Your task to perform on an android device: uninstall "Google News" Image 0: 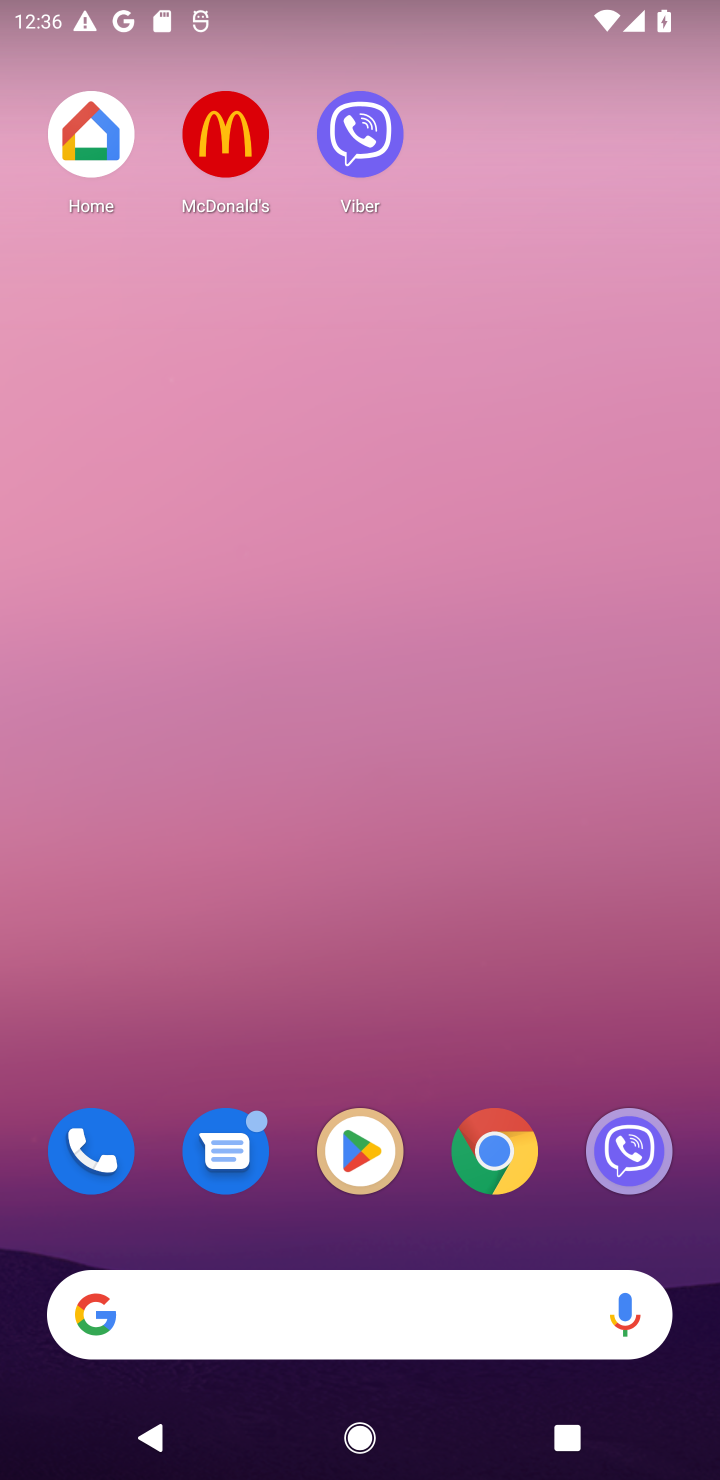
Step 0: click (341, 1107)
Your task to perform on an android device: uninstall "Google News" Image 1: 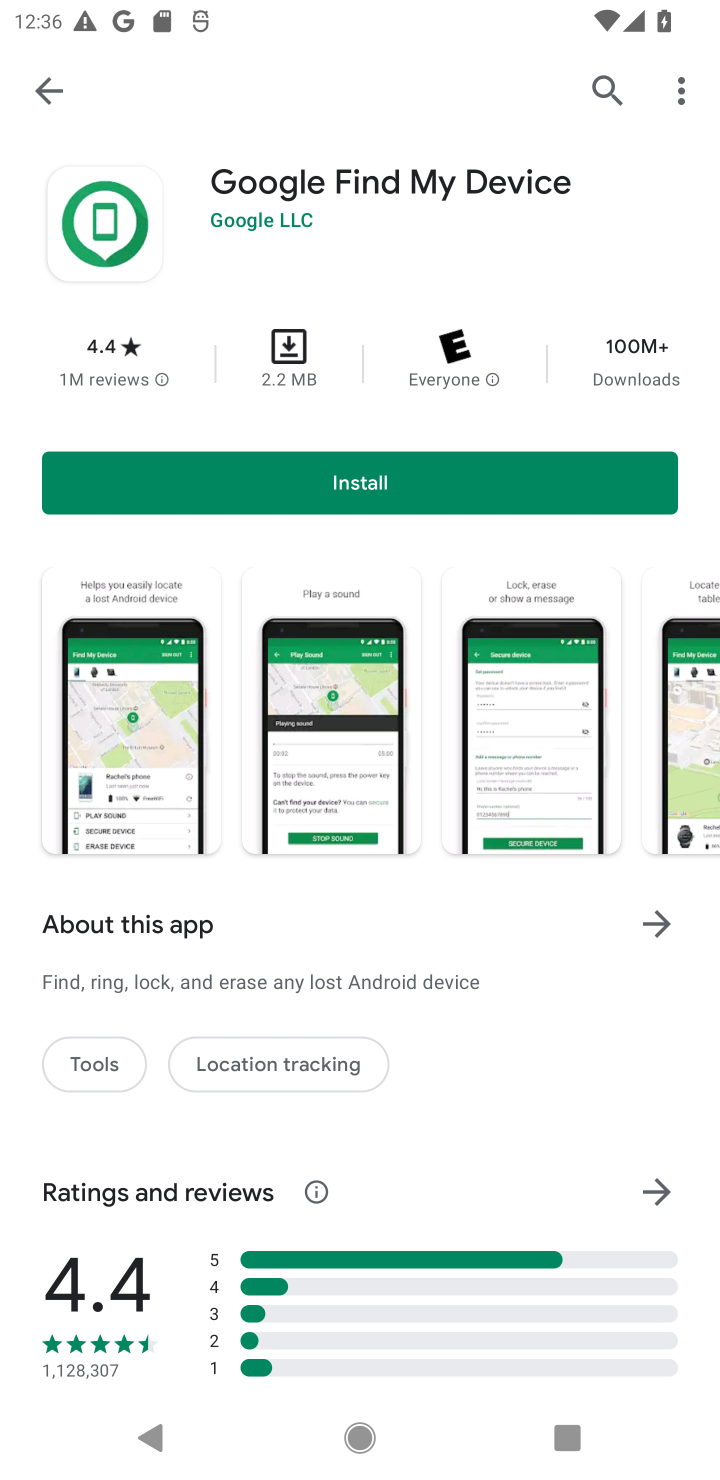
Step 1: click (609, 102)
Your task to perform on an android device: uninstall "Google News" Image 2: 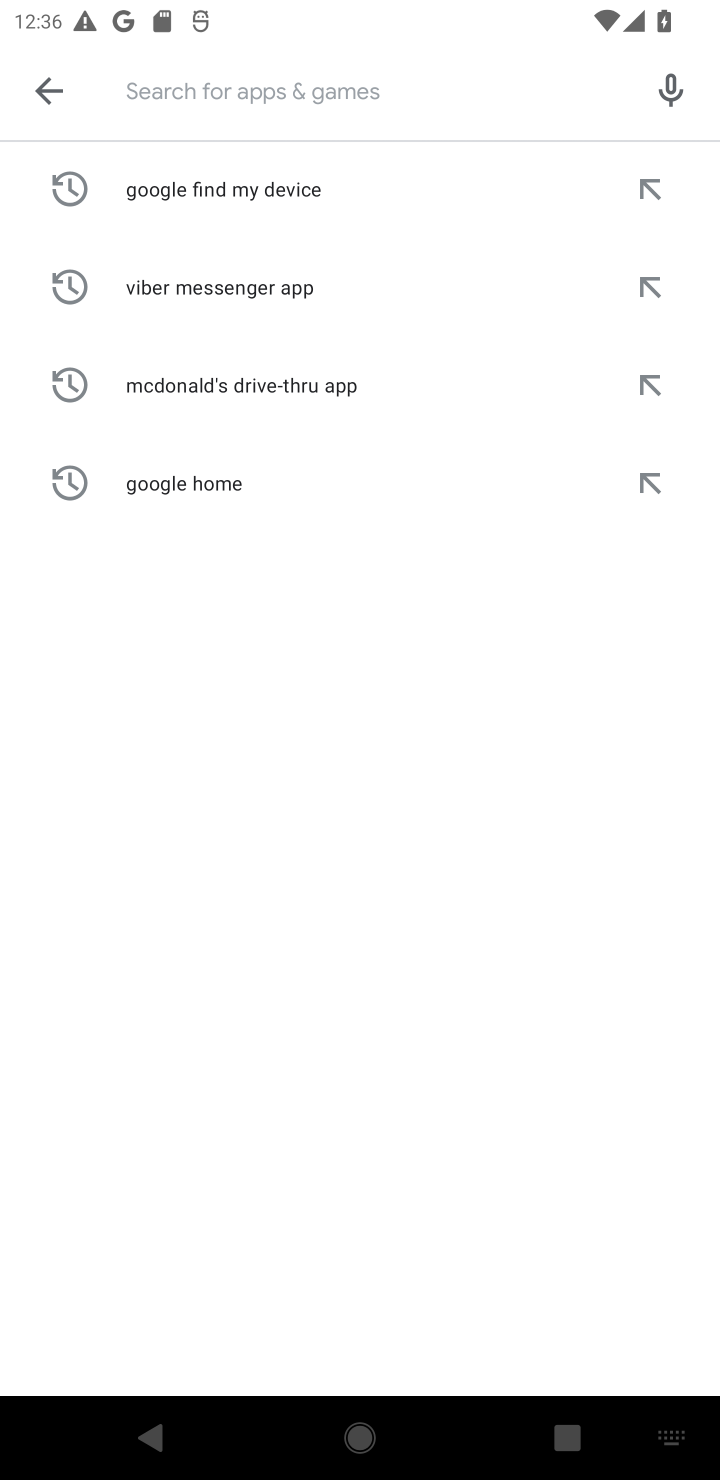
Step 2: type "Google News"
Your task to perform on an android device: uninstall "Google News" Image 3: 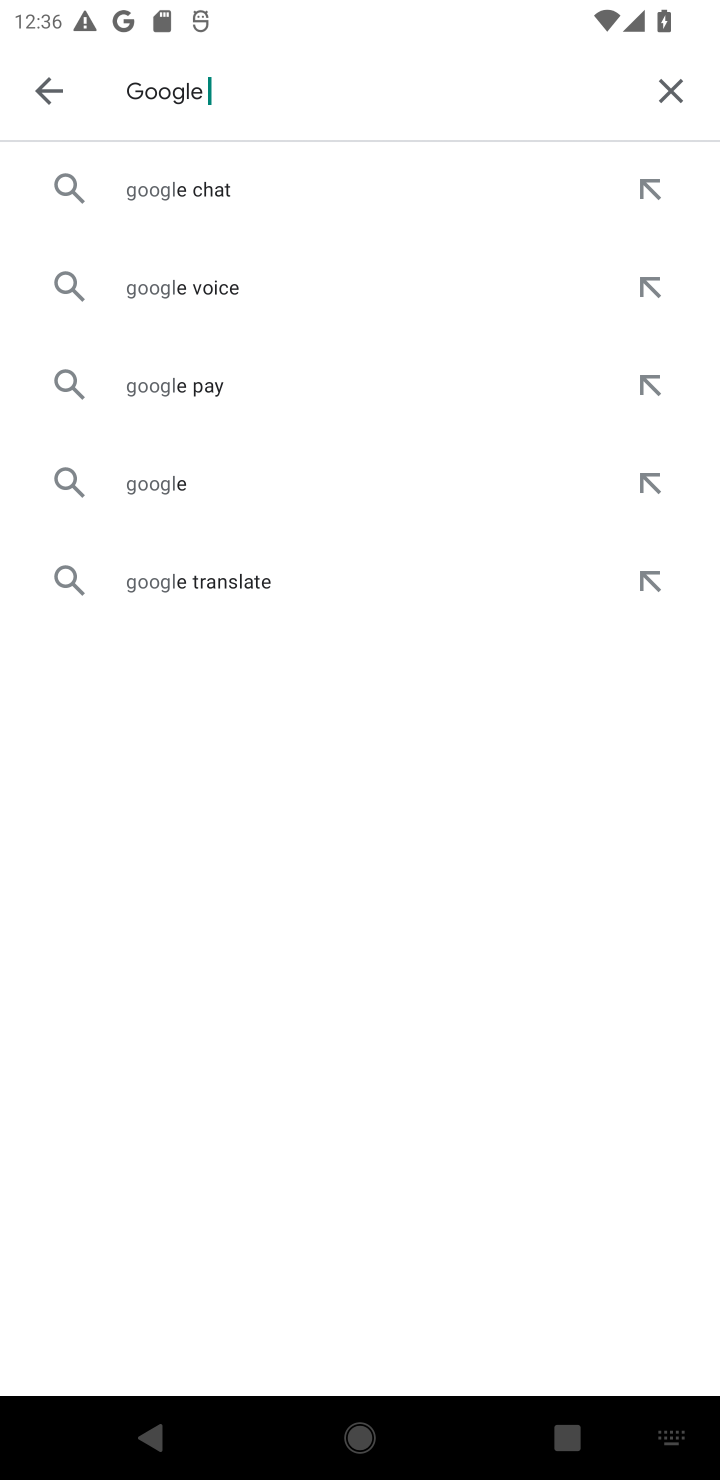
Step 3: type ""
Your task to perform on an android device: uninstall "Google News" Image 4: 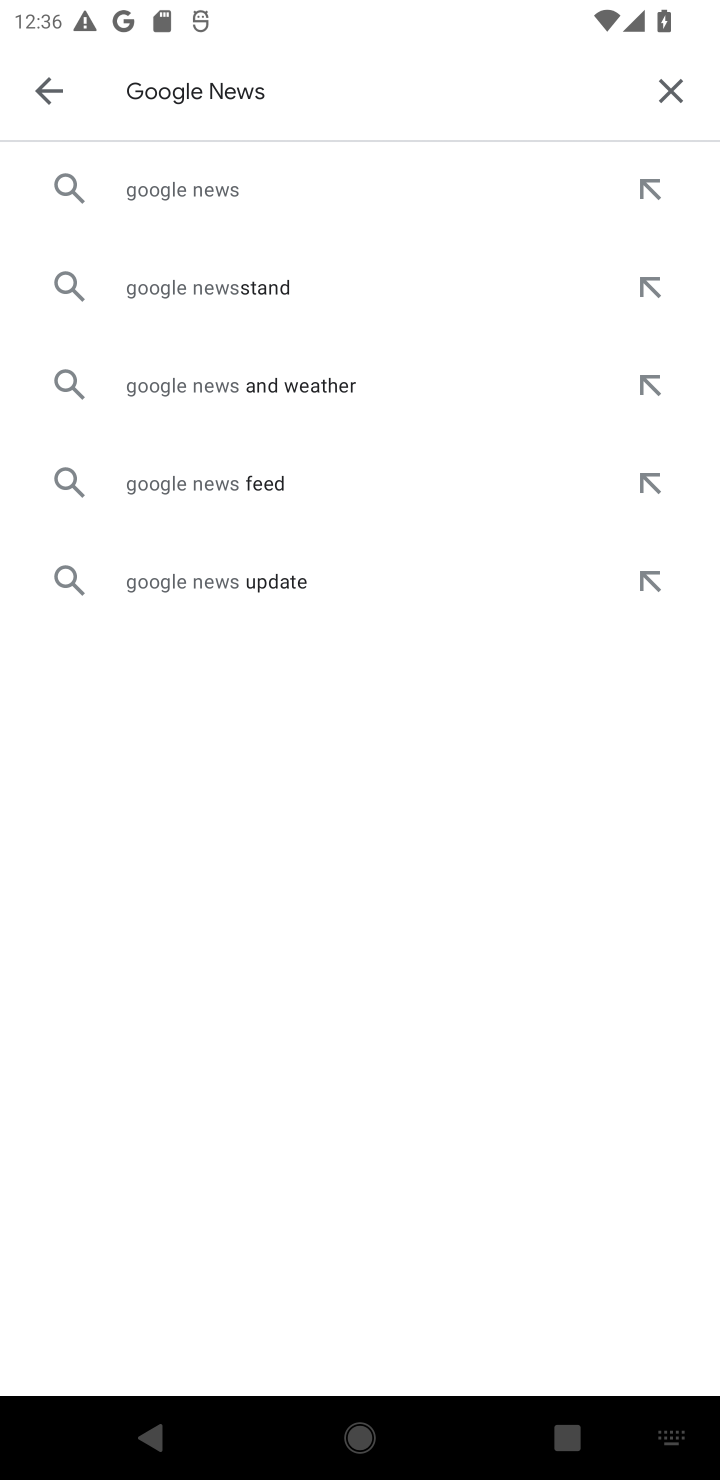
Step 4: click (250, 201)
Your task to perform on an android device: uninstall "Google News" Image 5: 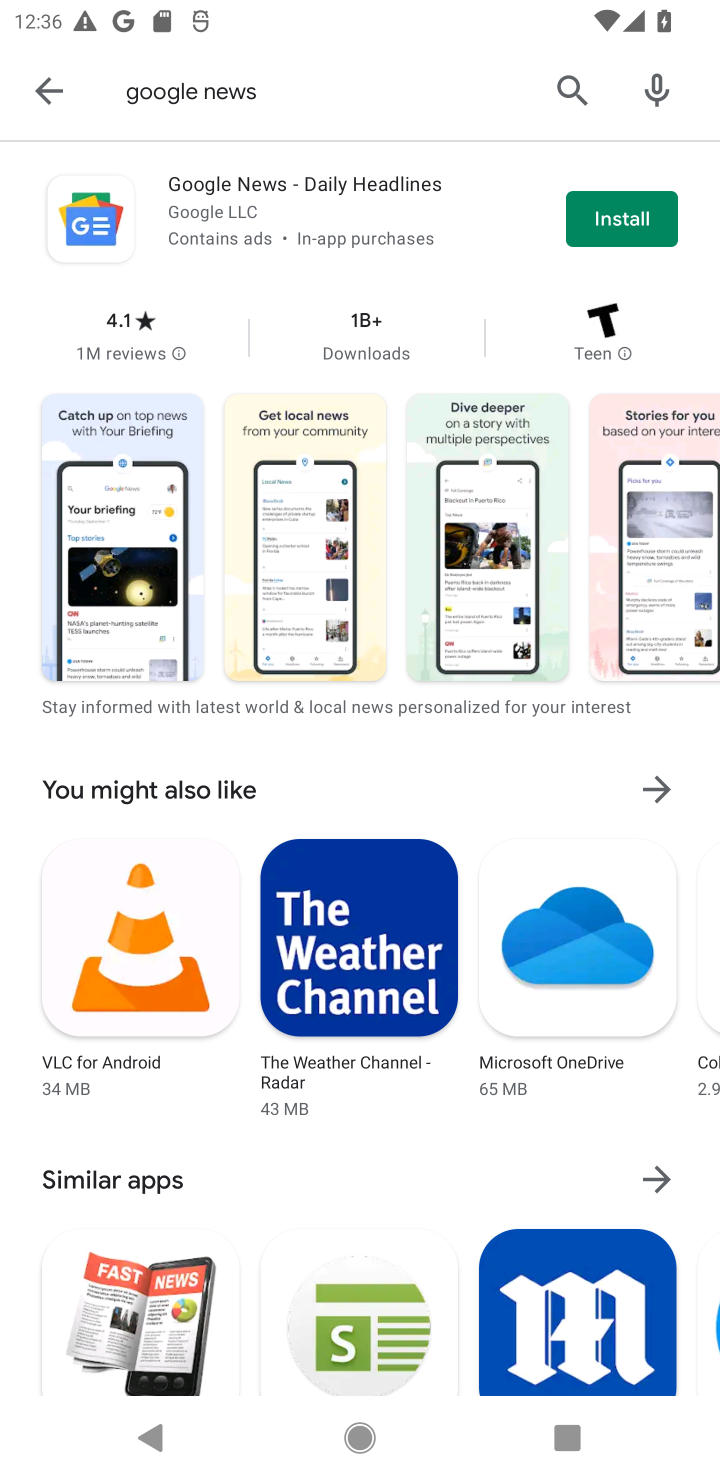
Step 5: task complete